Your task to perform on an android device: remove spam from my inbox in the gmail app Image 0: 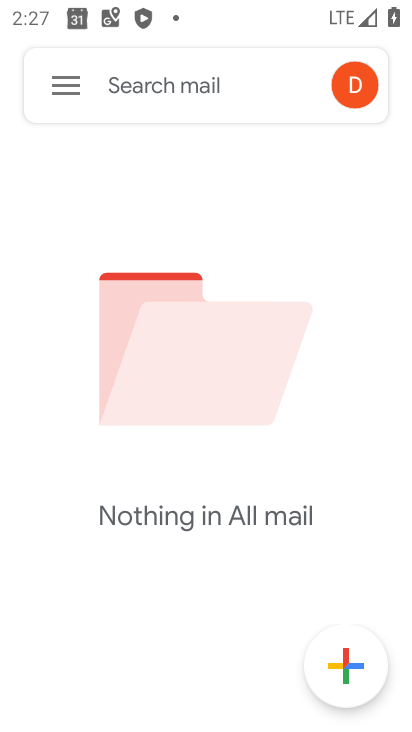
Step 0: press home button
Your task to perform on an android device: remove spam from my inbox in the gmail app Image 1: 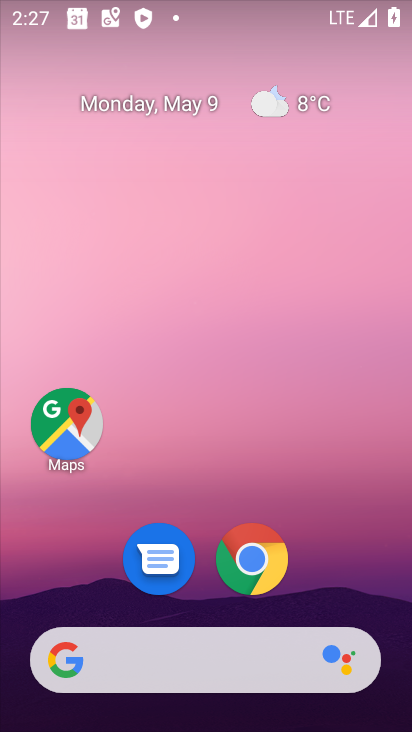
Step 1: drag from (309, 490) to (200, 78)
Your task to perform on an android device: remove spam from my inbox in the gmail app Image 2: 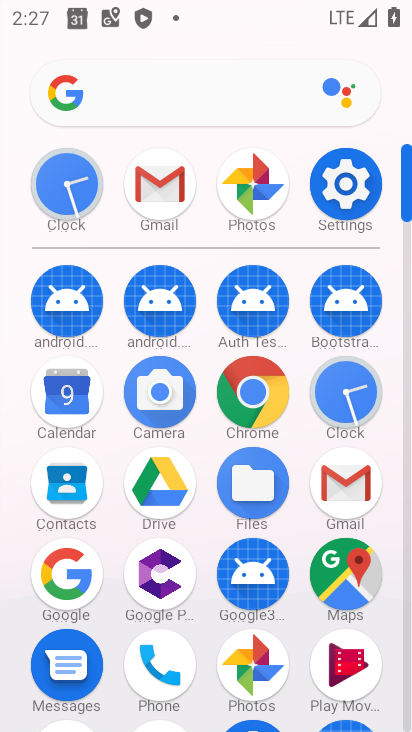
Step 2: click (157, 191)
Your task to perform on an android device: remove spam from my inbox in the gmail app Image 3: 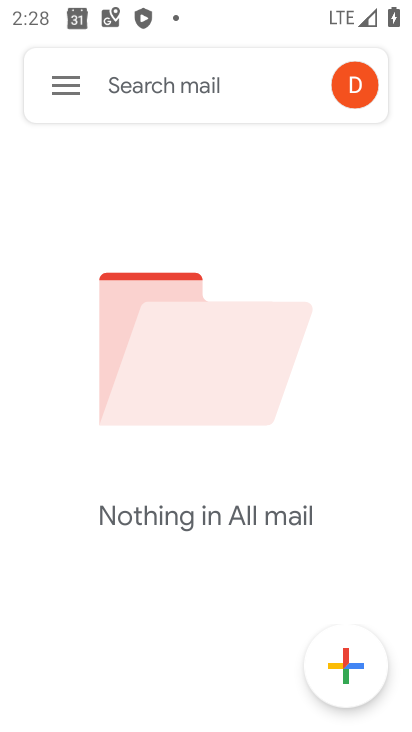
Step 3: click (65, 86)
Your task to perform on an android device: remove spam from my inbox in the gmail app Image 4: 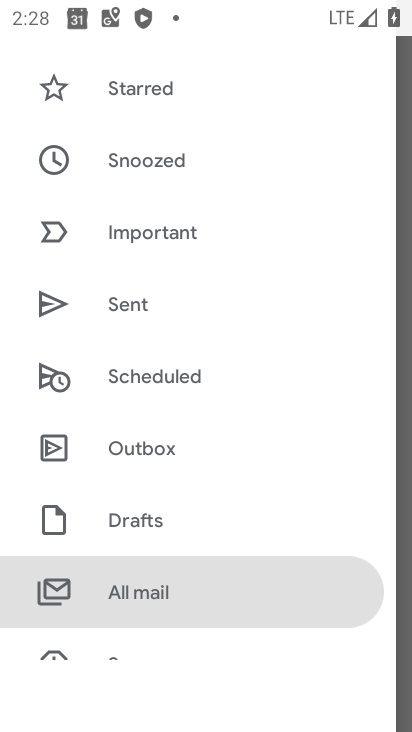
Step 4: drag from (190, 390) to (178, 4)
Your task to perform on an android device: remove spam from my inbox in the gmail app Image 5: 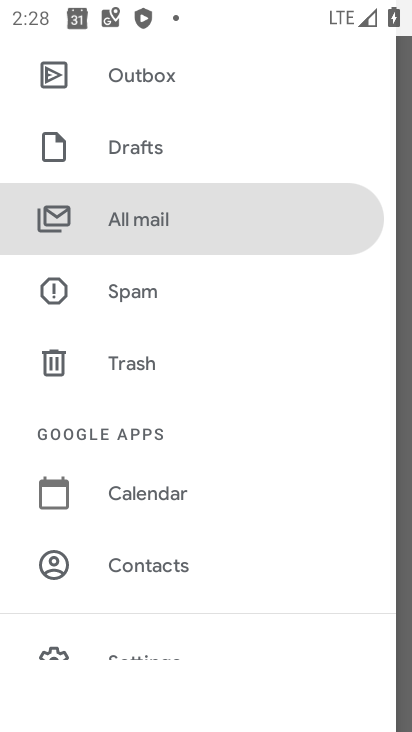
Step 5: click (115, 287)
Your task to perform on an android device: remove spam from my inbox in the gmail app Image 6: 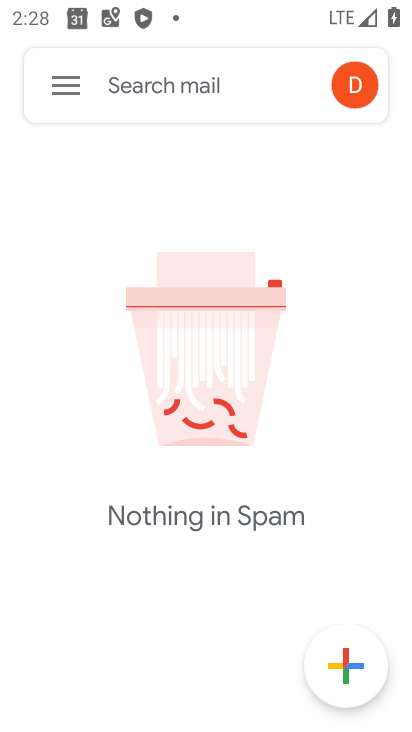
Step 6: task complete